Your task to perform on an android device: turn notification dots on Image 0: 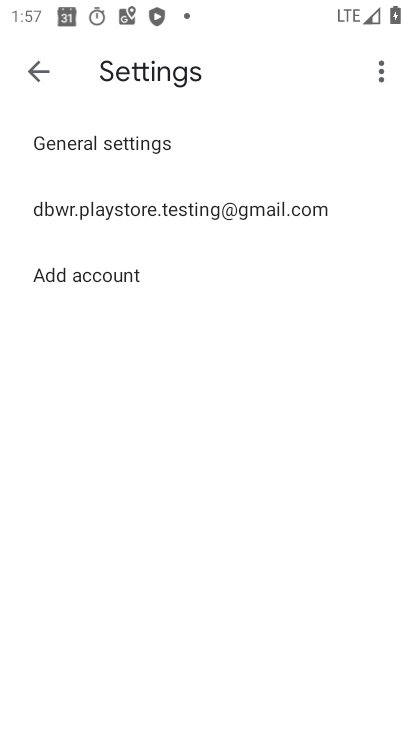
Step 0: press home button
Your task to perform on an android device: turn notification dots on Image 1: 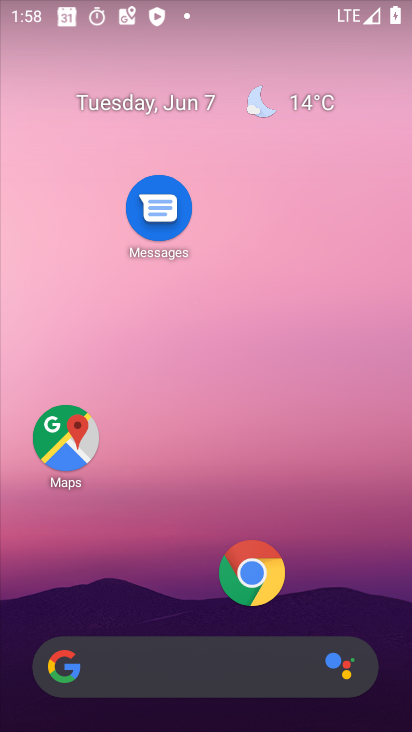
Step 1: drag from (214, 550) to (274, 121)
Your task to perform on an android device: turn notification dots on Image 2: 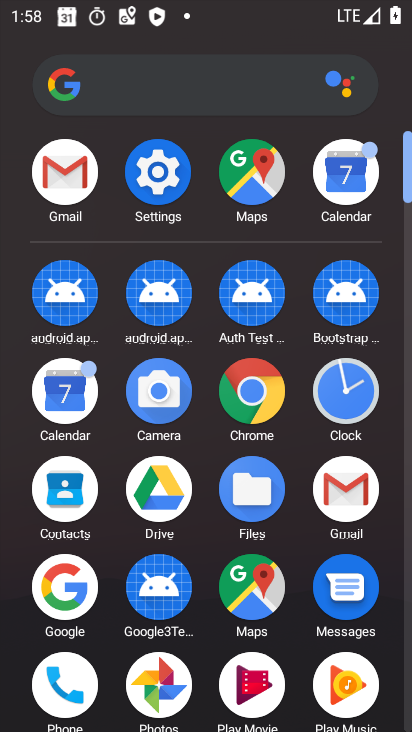
Step 2: click (166, 161)
Your task to perform on an android device: turn notification dots on Image 3: 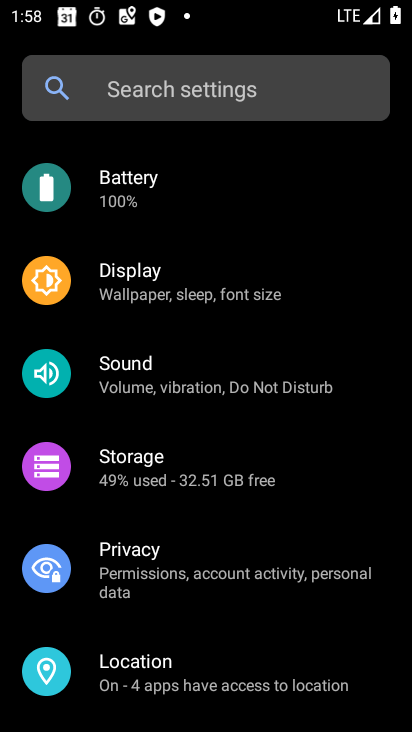
Step 3: drag from (184, 238) to (200, 559)
Your task to perform on an android device: turn notification dots on Image 4: 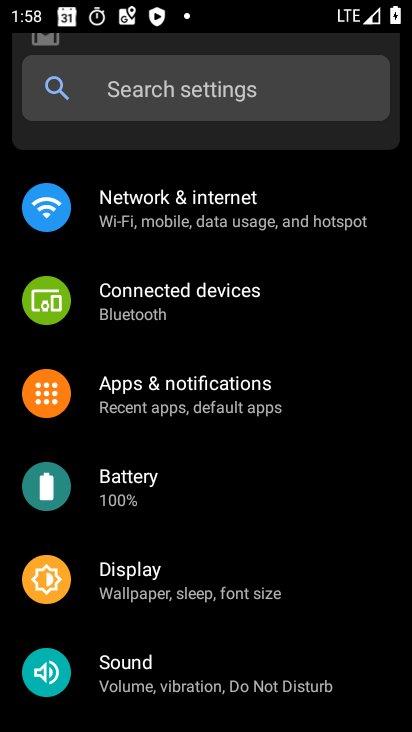
Step 4: click (283, 391)
Your task to perform on an android device: turn notification dots on Image 5: 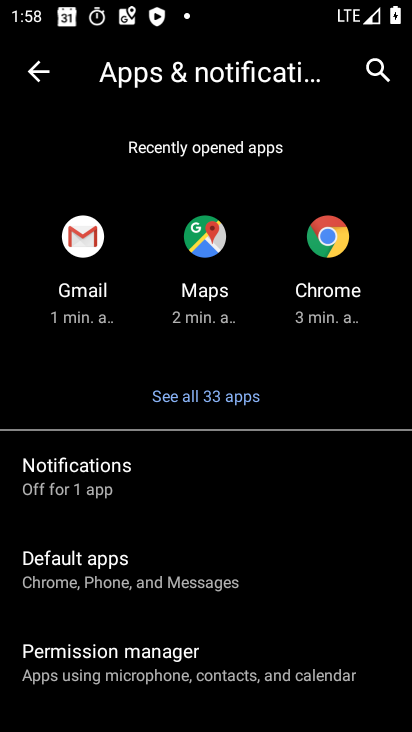
Step 5: click (157, 482)
Your task to perform on an android device: turn notification dots on Image 6: 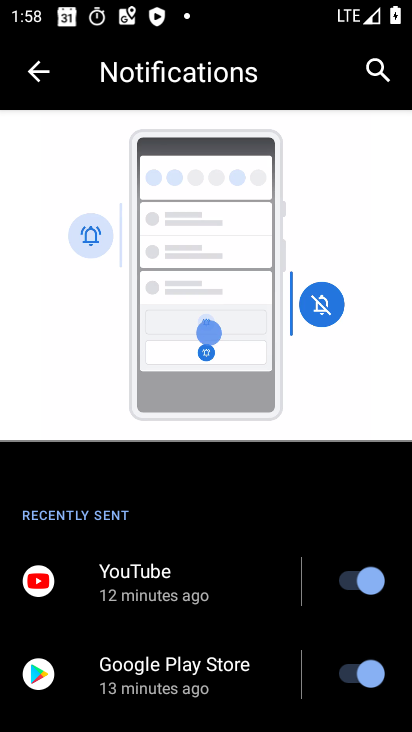
Step 6: drag from (262, 655) to (298, 227)
Your task to perform on an android device: turn notification dots on Image 7: 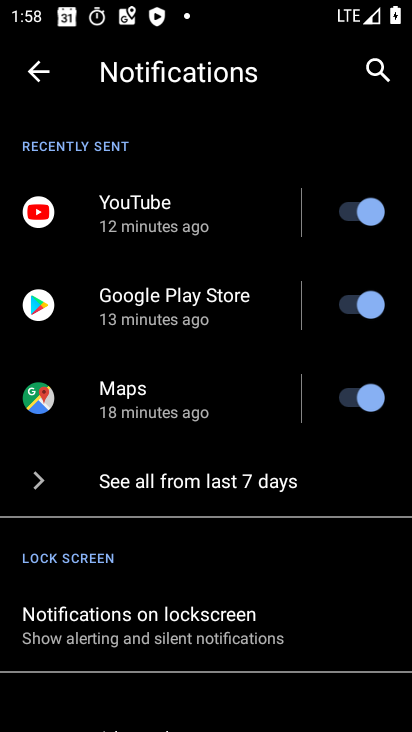
Step 7: drag from (270, 630) to (297, 169)
Your task to perform on an android device: turn notification dots on Image 8: 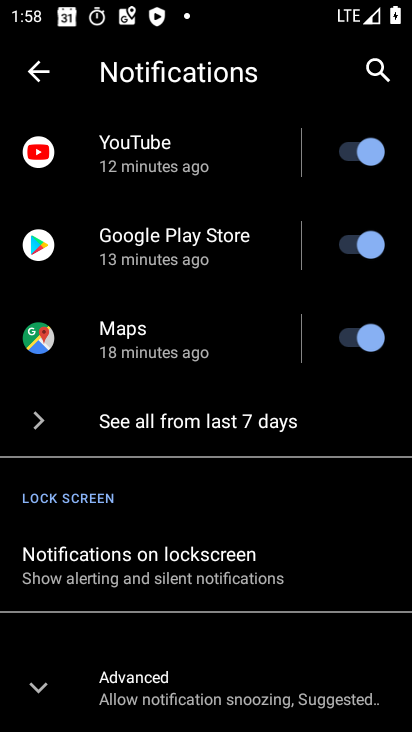
Step 8: click (37, 683)
Your task to perform on an android device: turn notification dots on Image 9: 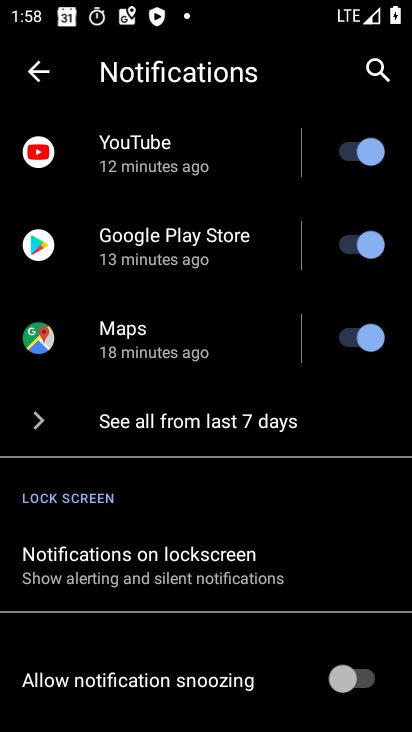
Step 9: task complete